Your task to perform on an android device: Open settings Image 0: 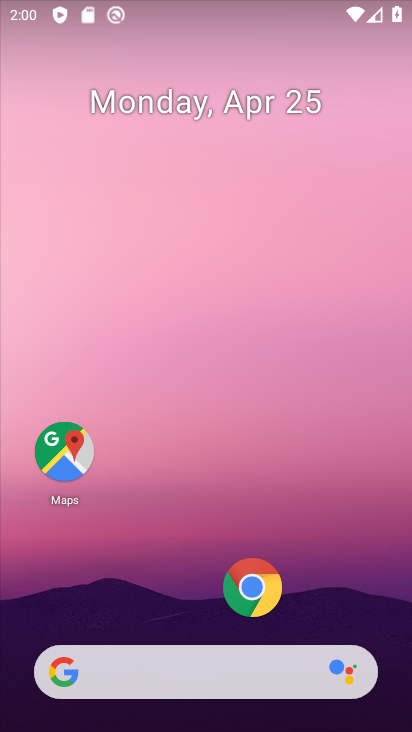
Step 0: drag from (211, 626) to (157, 40)
Your task to perform on an android device: Open settings Image 1: 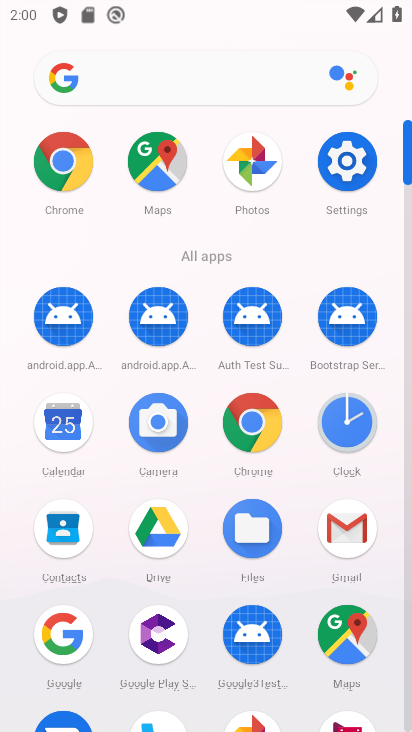
Step 1: click (345, 155)
Your task to perform on an android device: Open settings Image 2: 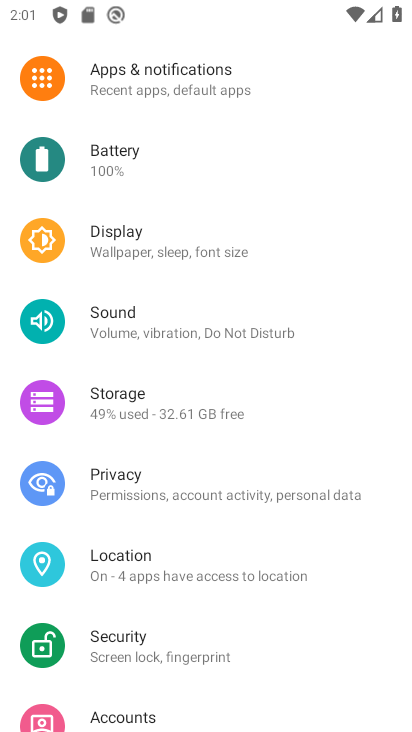
Step 2: task complete